Your task to perform on an android device: Open location settings Image 0: 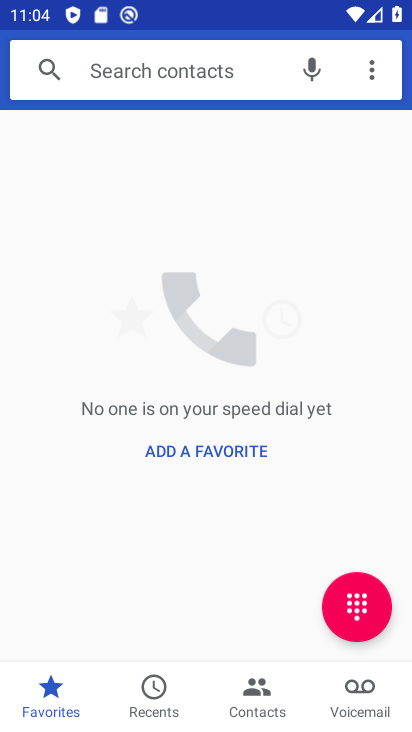
Step 0: press home button
Your task to perform on an android device: Open location settings Image 1: 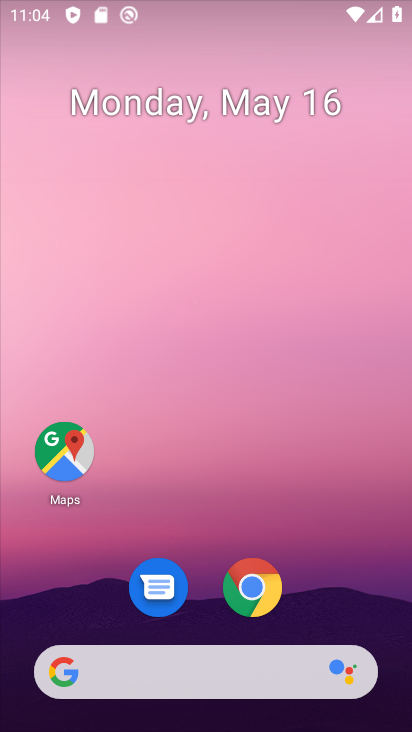
Step 1: drag from (367, 575) to (386, 126)
Your task to perform on an android device: Open location settings Image 2: 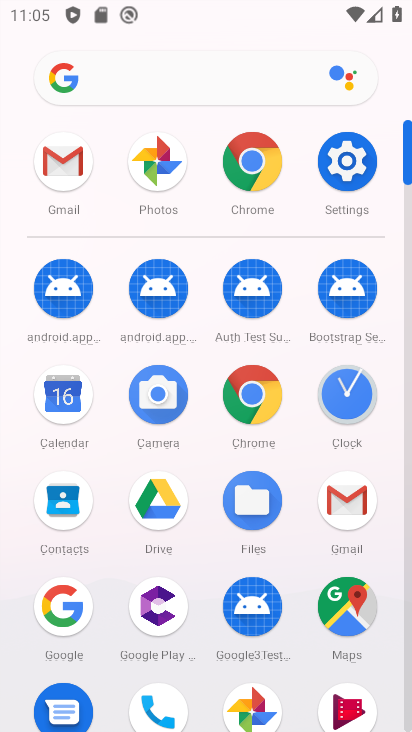
Step 2: click (339, 157)
Your task to perform on an android device: Open location settings Image 3: 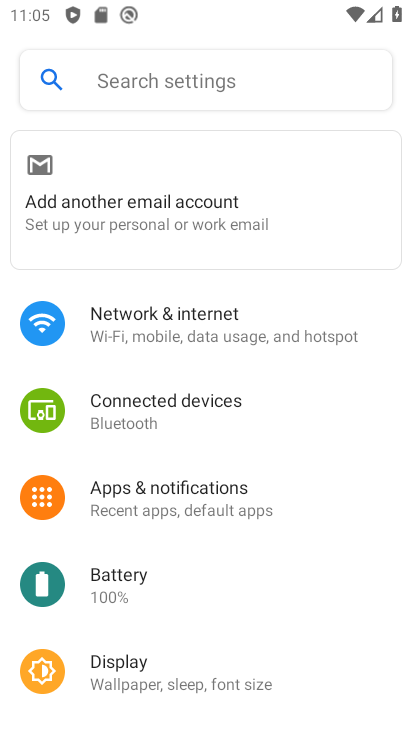
Step 3: drag from (157, 677) to (209, 125)
Your task to perform on an android device: Open location settings Image 4: 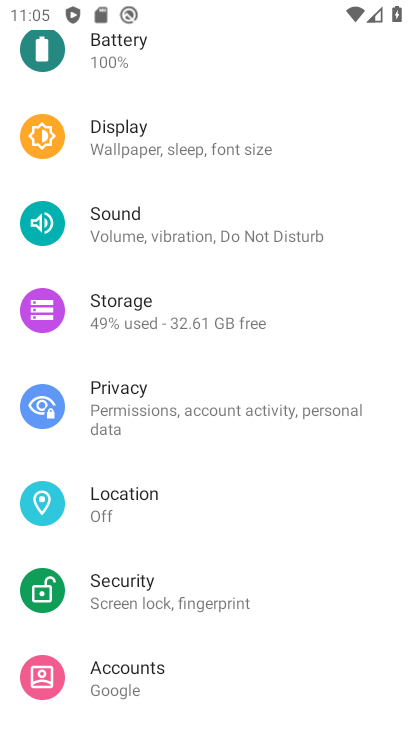
Step 4: click (158, 497)
Your task to perform on an android device: Open location settings Image 5: 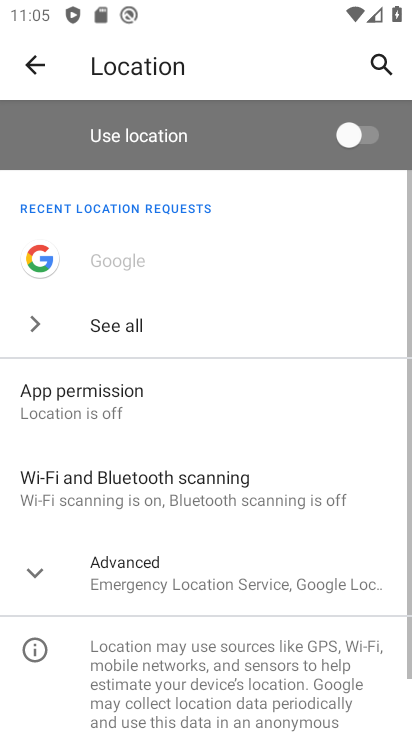
Step 5: task complete